Your task to perform on an android device: uninstall "Paramount+ | Peak Streaming" Image 0: 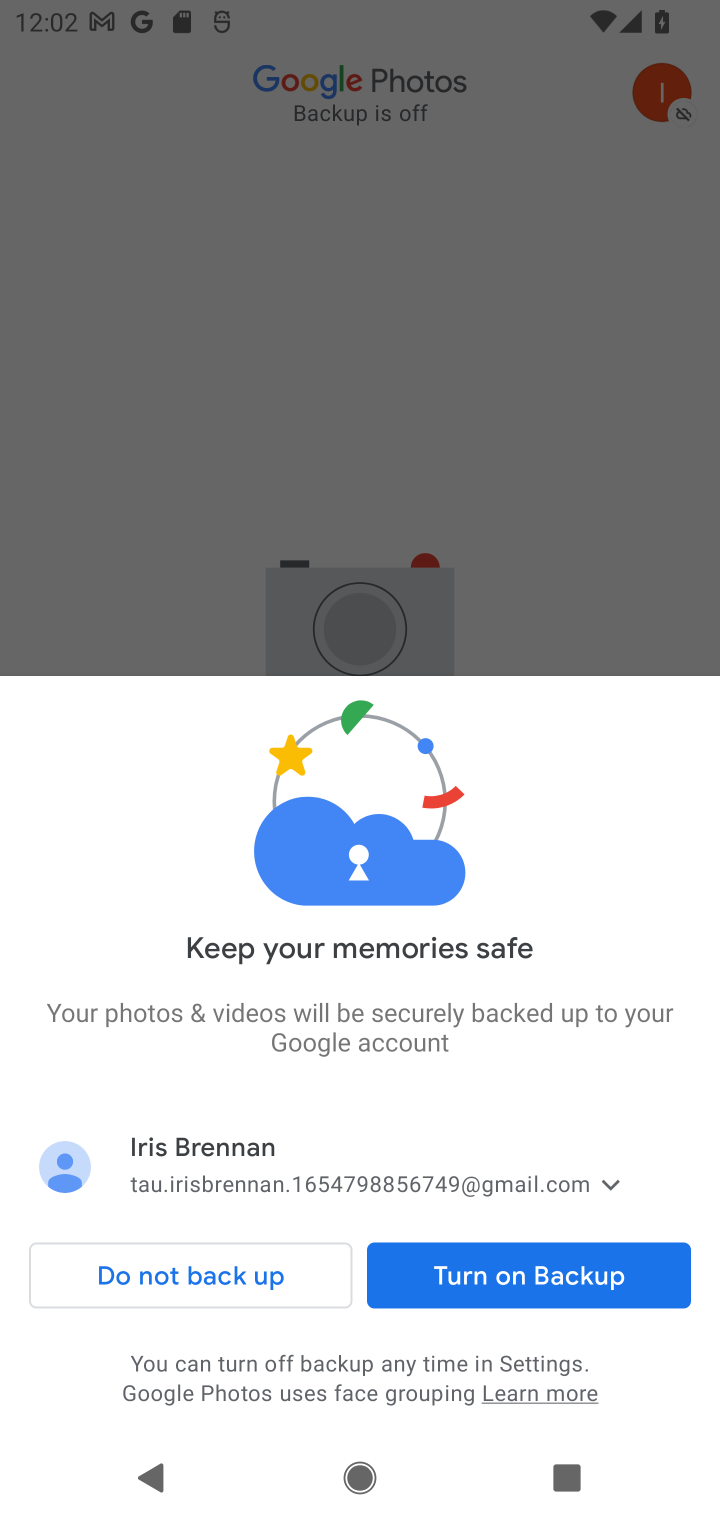
Step 0: press home button
Your task to perform on an android device: uninstall "Paramount+ | Peak Streaming" Image 1: 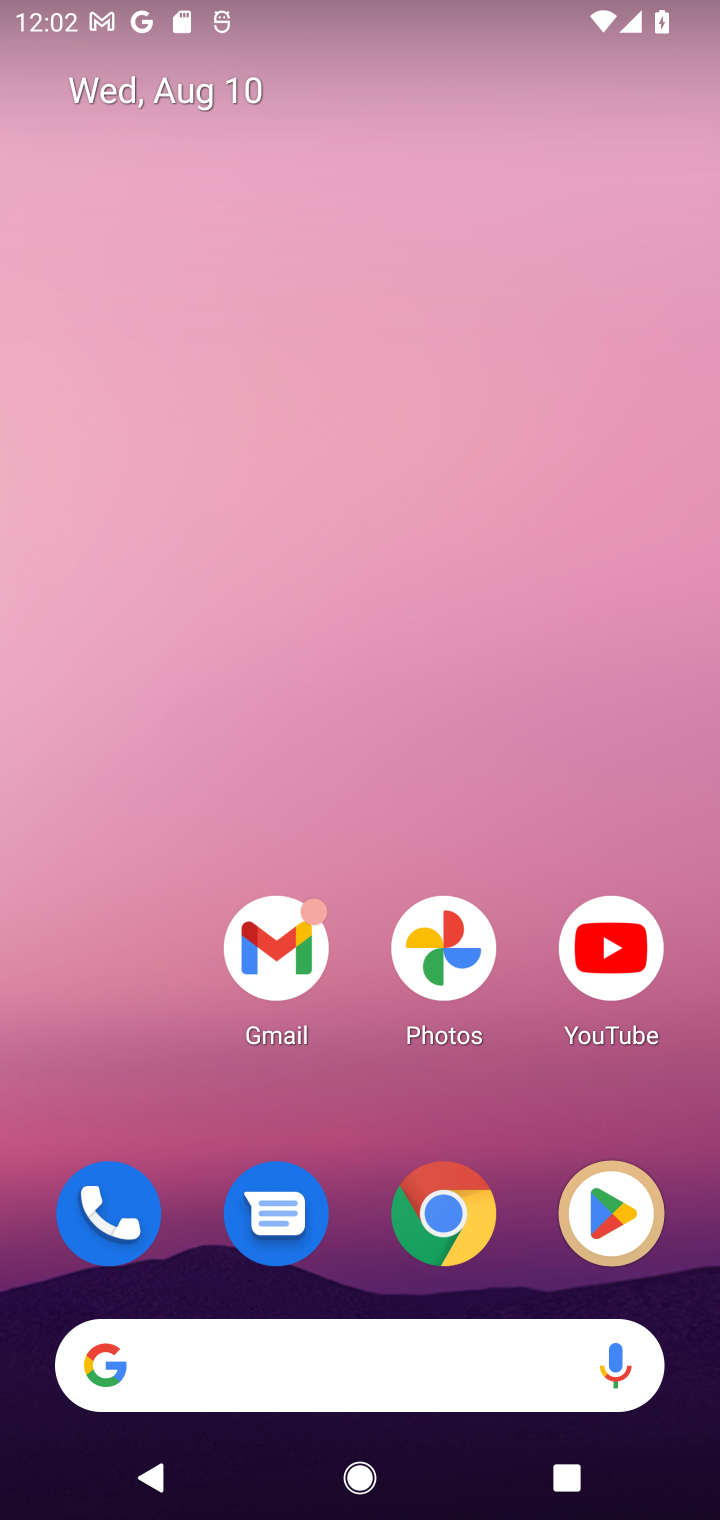
Step 1: drag from (275, 1382) to (217, 317)
Your task to perform on an android device: uninstall "Paramount+ | Peak Streaming" Image 2: 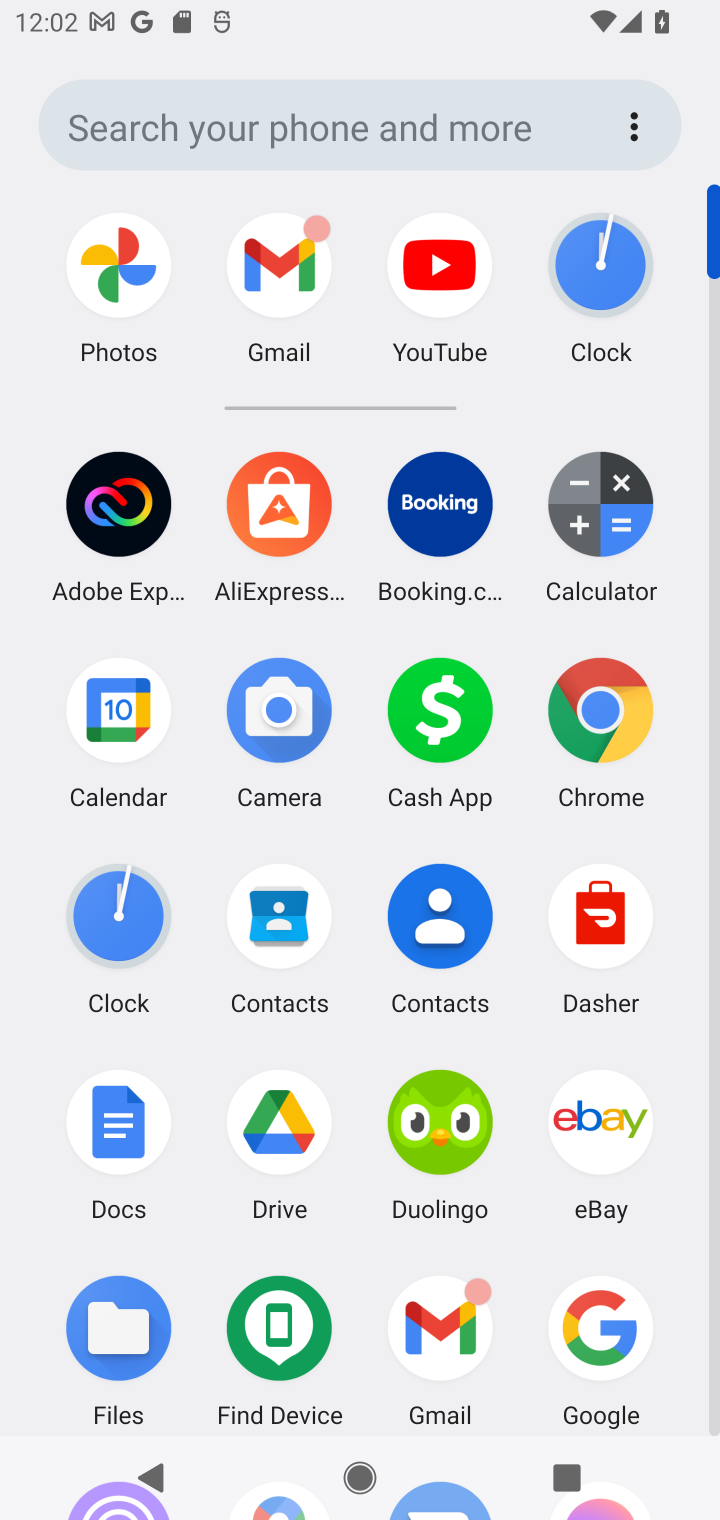
Step 2: drag from (215, 1267) to (167, 590)
Your task to perform on an android device: uninstall "Paramount+ | Peak Streaming" Image 3: 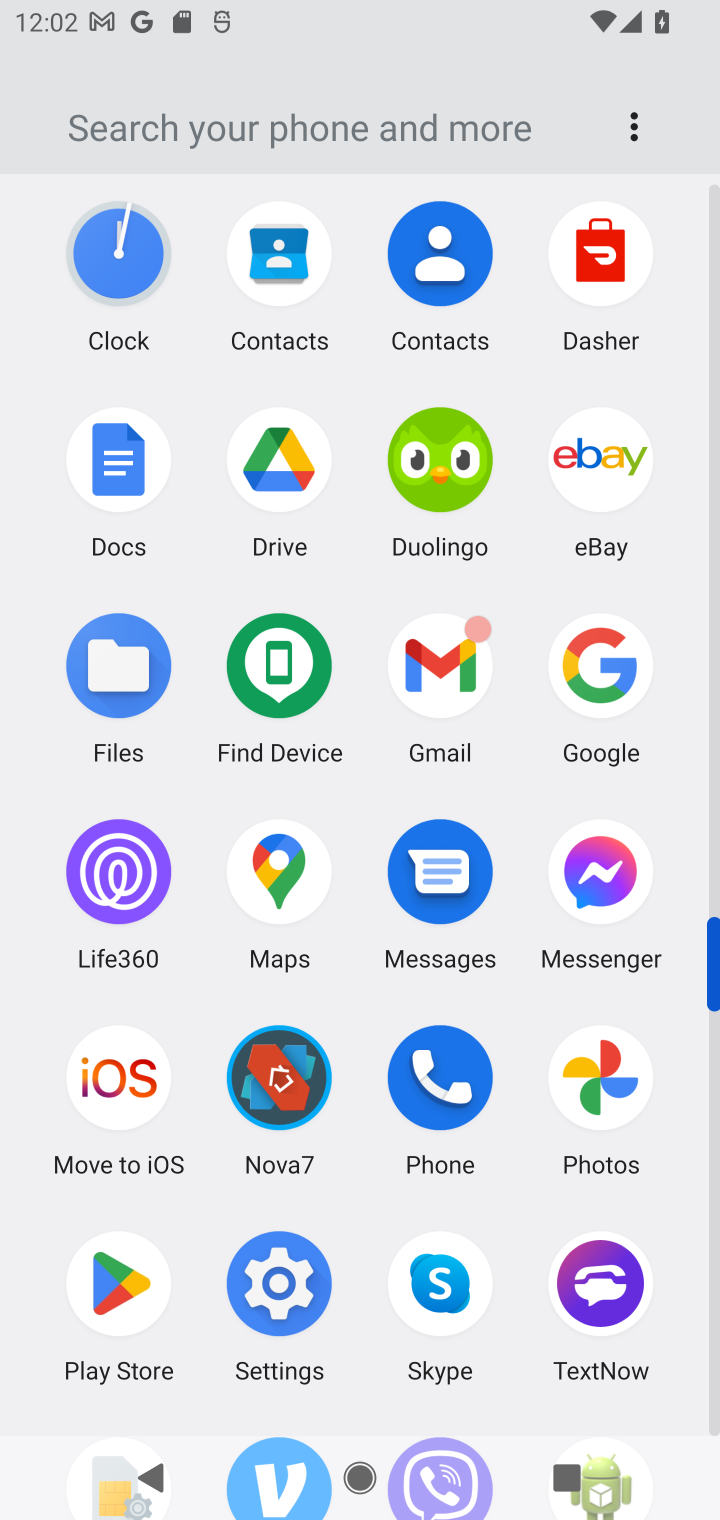
Step 3: click (125, 1286)
Your task to perform on an android device: uninstall "Paramount+ | Peak Streaming" Image 4: 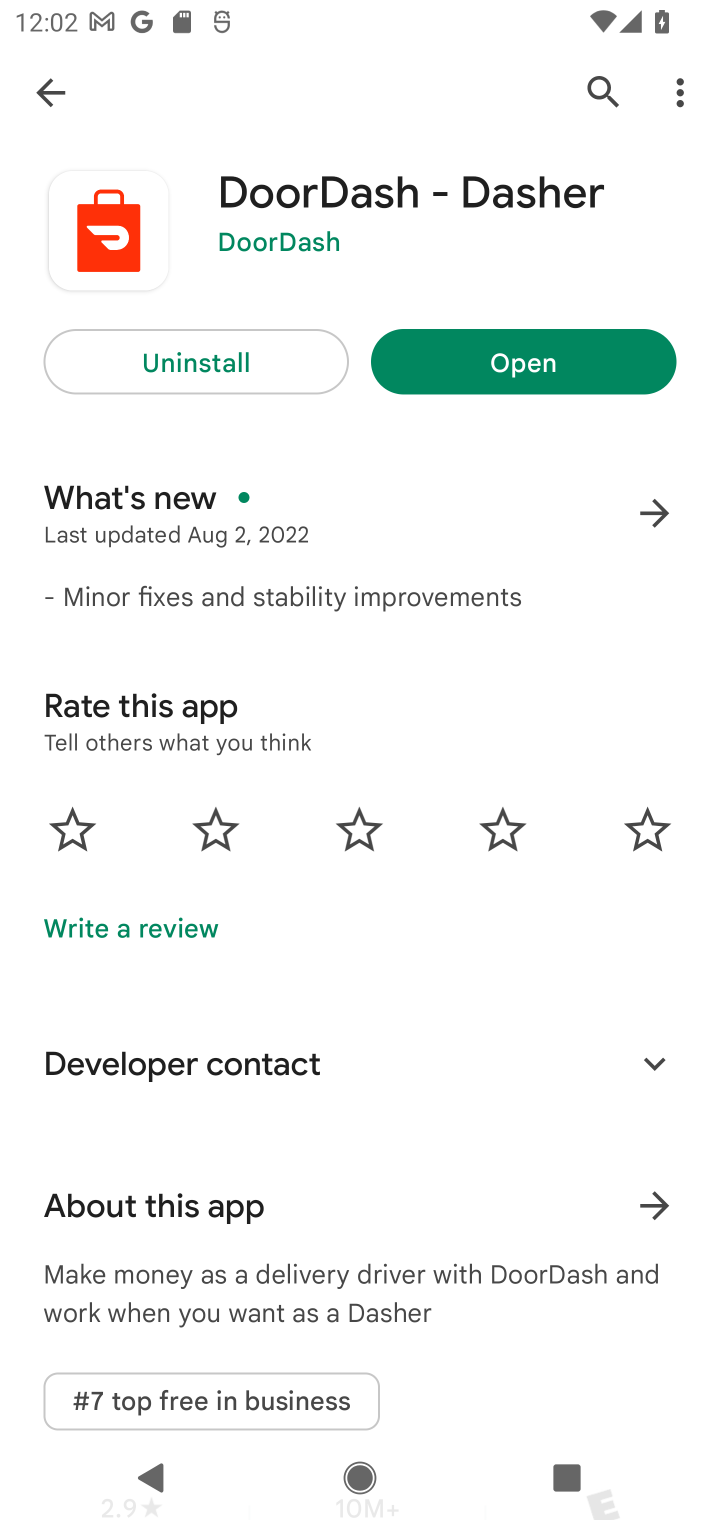
Step 4: press back button
Your task to perform on an android device: uninstall "Paramount+ | Peak Streaming" Image 5: 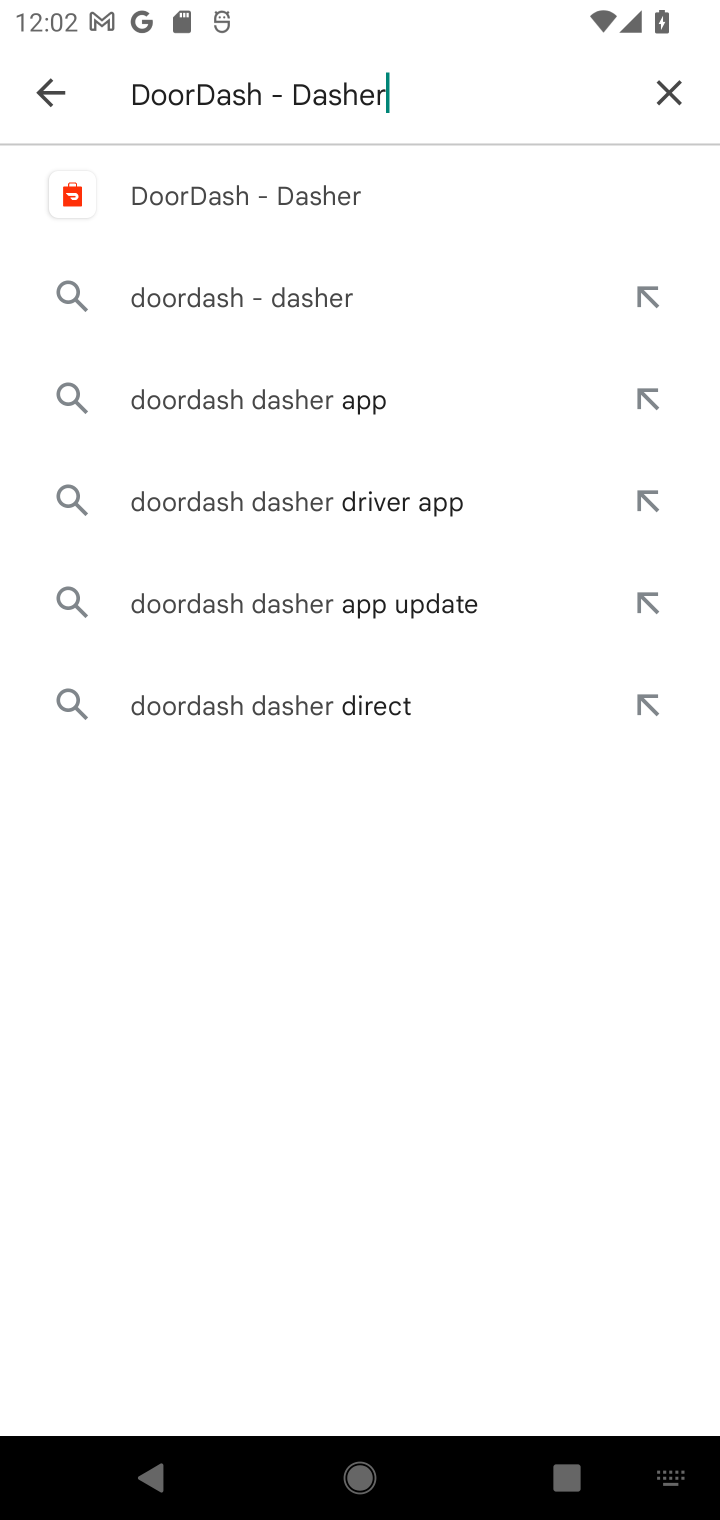
Step 5: press back button
Your task to perform on an android device: uninstall "Paramount+ | Peak Streaming" Image 6: 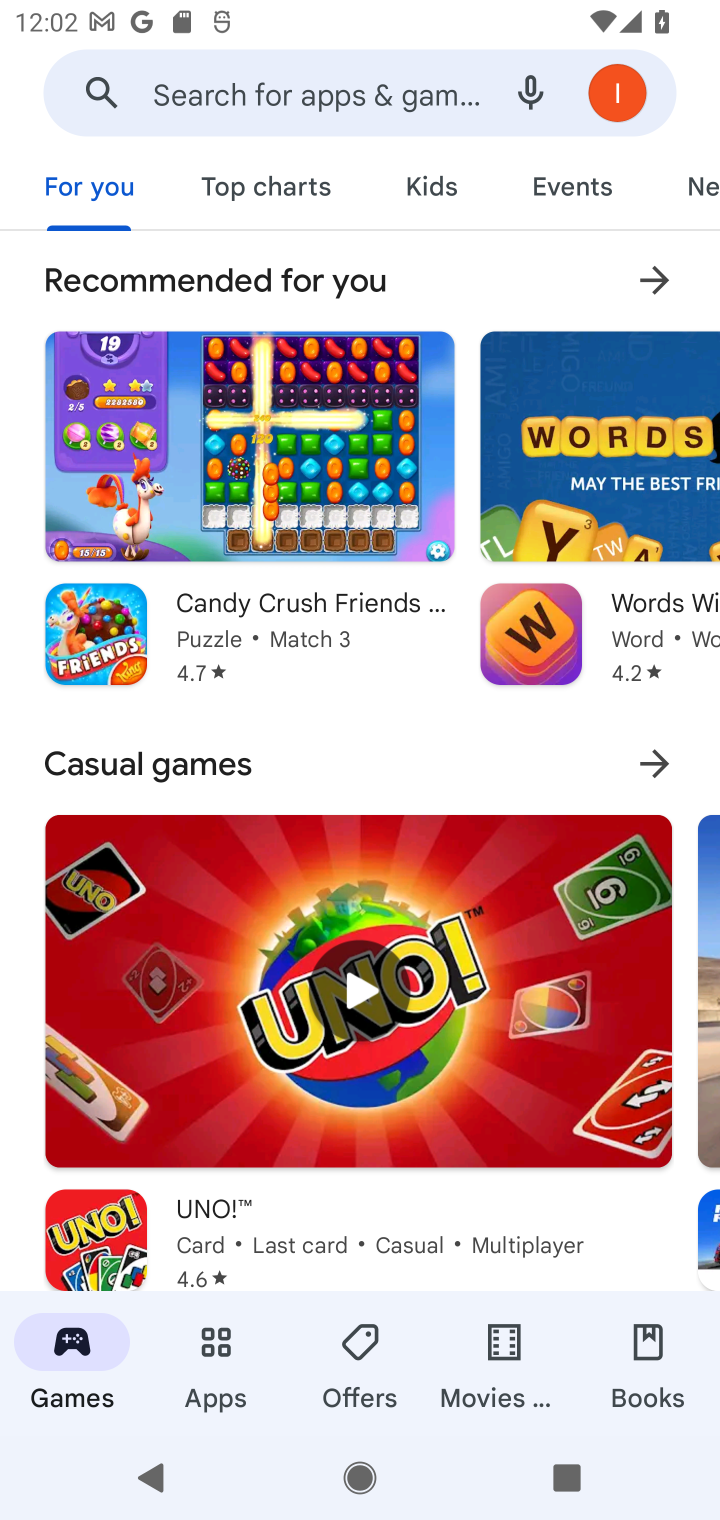
Step 6: click (375, 82)
Your task to perform on an android device: uninstall "Paramount+ | Peak Streaming" Image 7: 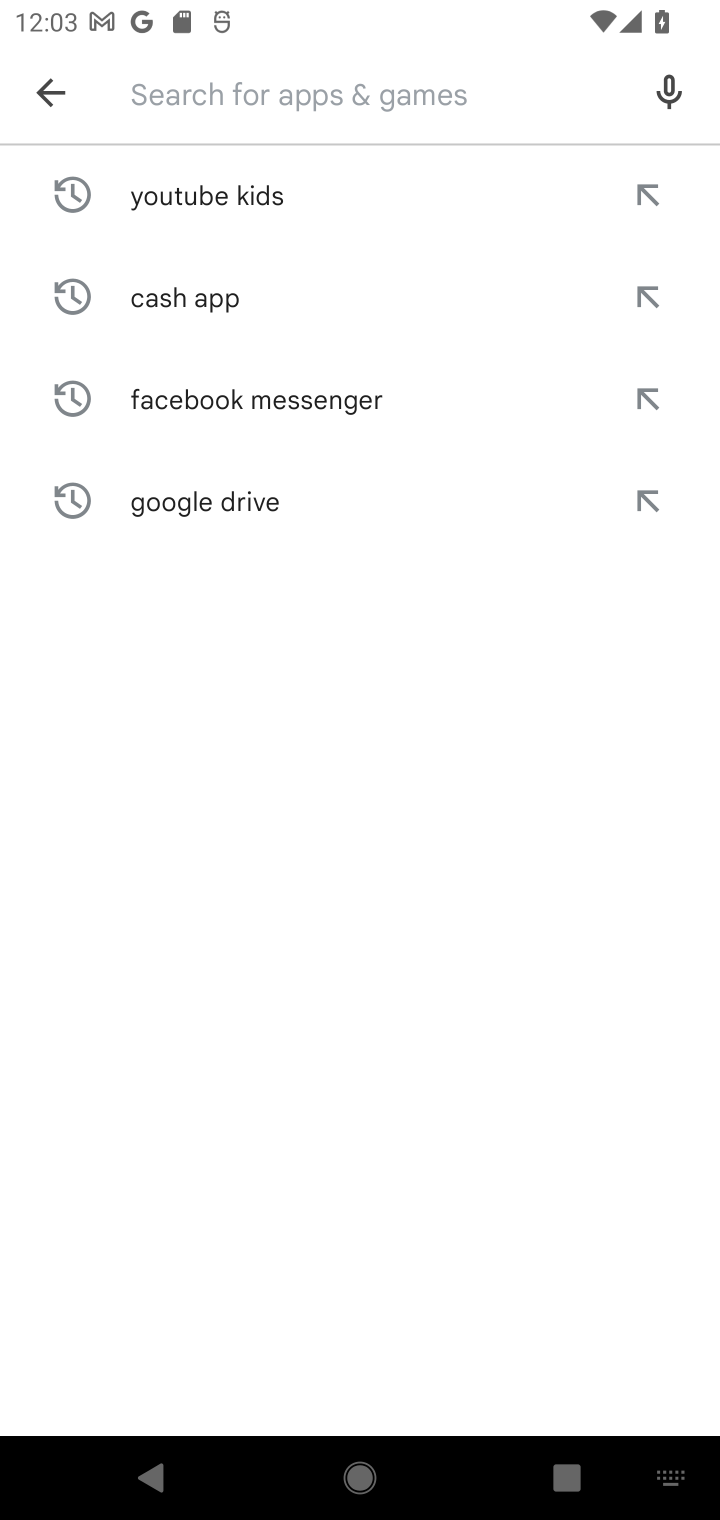
Step 7: type "Paramount+ | Peak Streaming"
Your task to perform on an android device: uninstall "Paramount+ | Peak Streaming" Image 8: 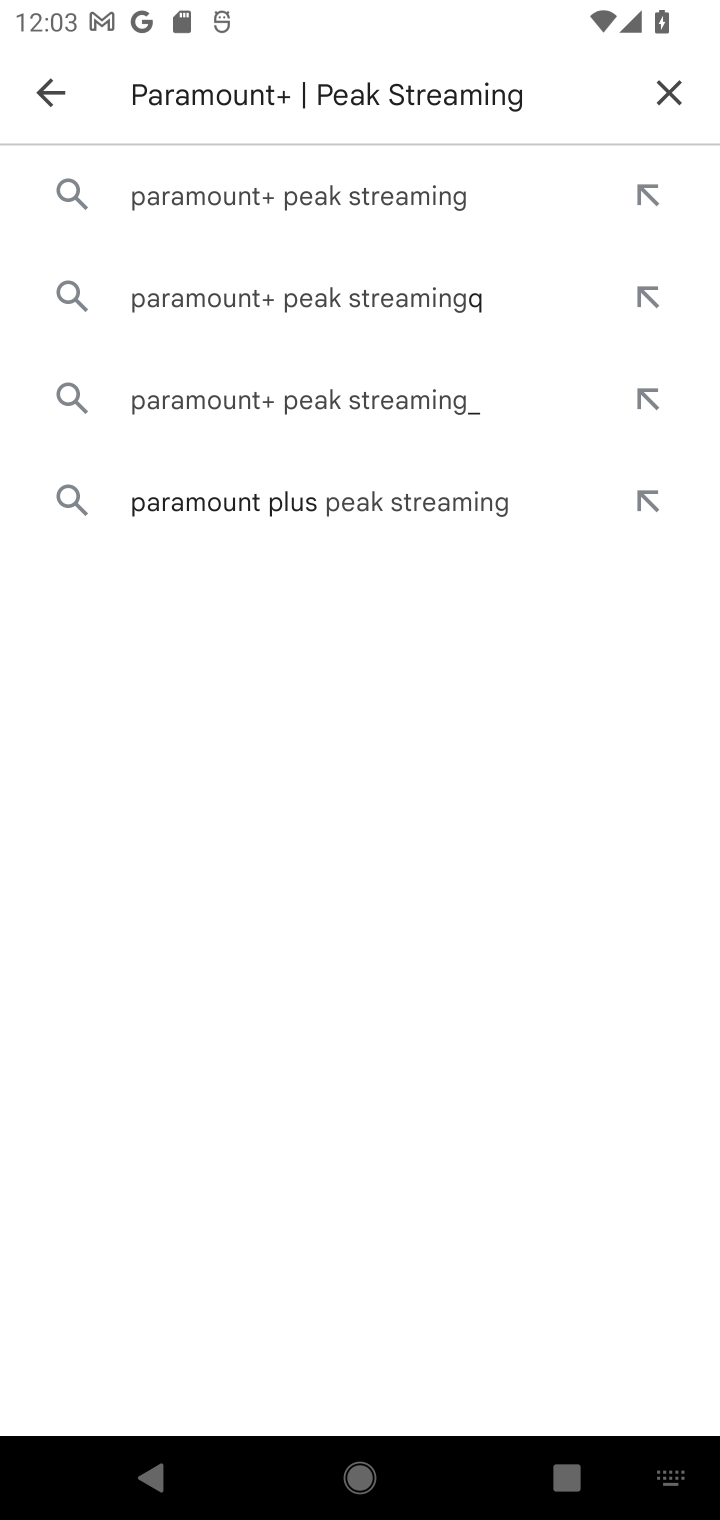
Step 8: click (216, 197)
Your task to perform on an android device: uninstall "Paramount+ | Peak Streaming" Image 9: 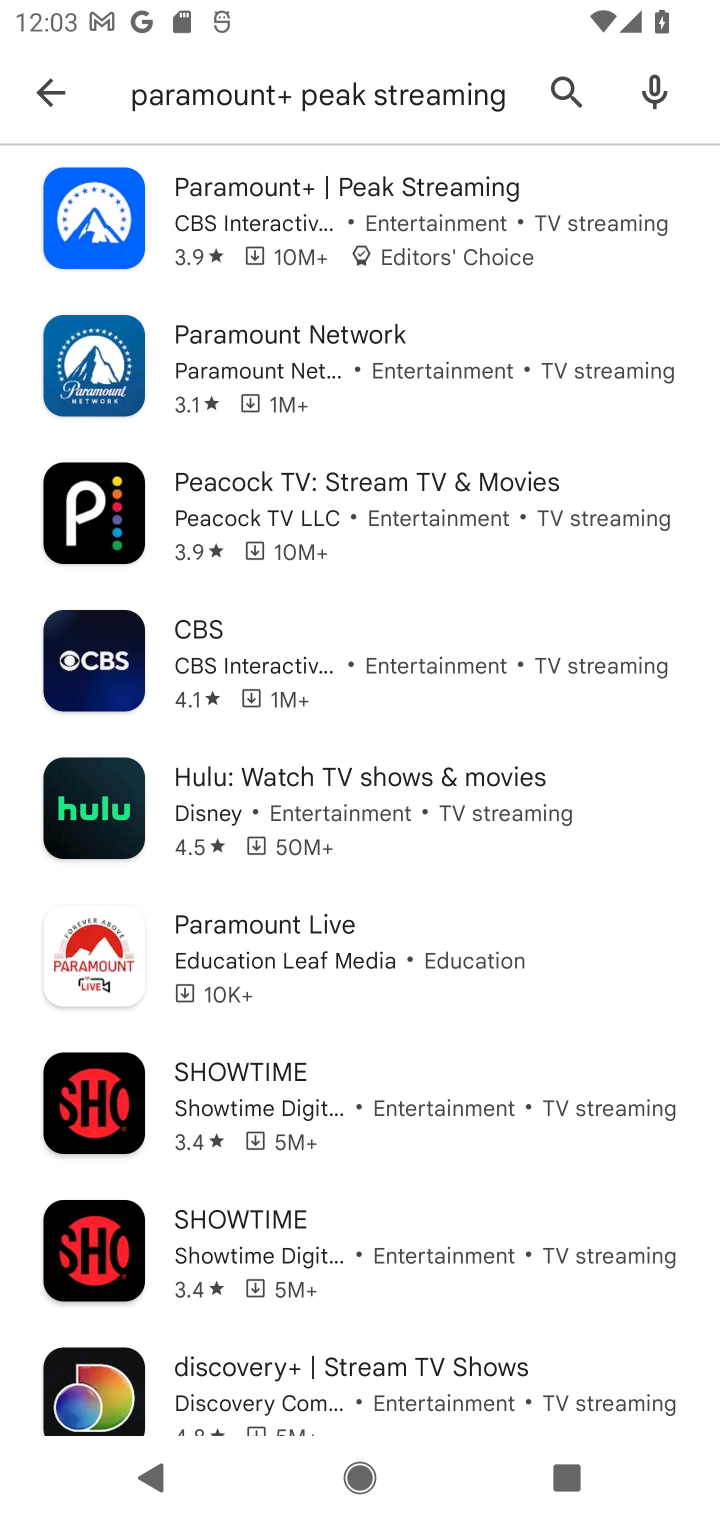
Step 9: click (216, 197)
Your task to perform on an android device: uninstall "Paramount+ | Peak Streaming" Image 10: 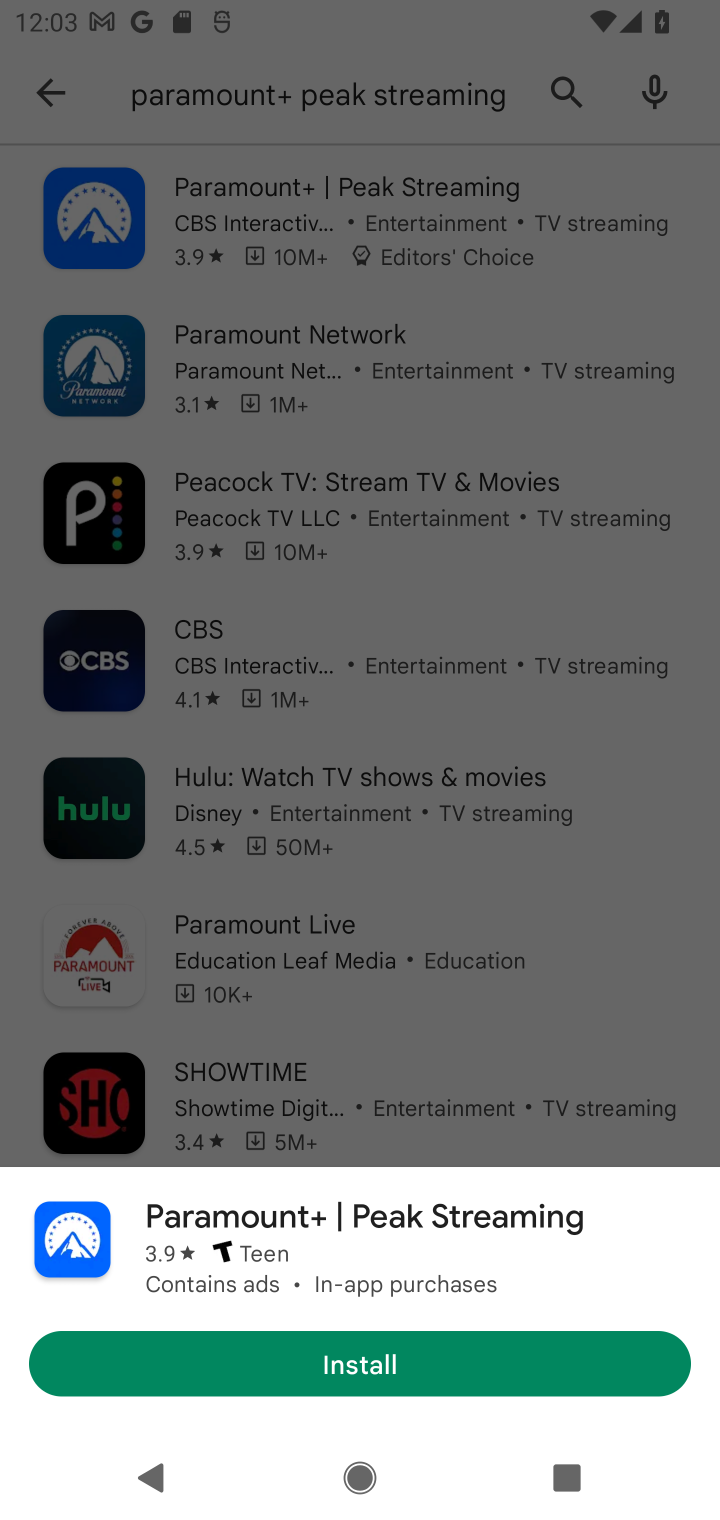
Step 10: task complete